Your task to perform on an android device: Open Yahoo.com Image 0: 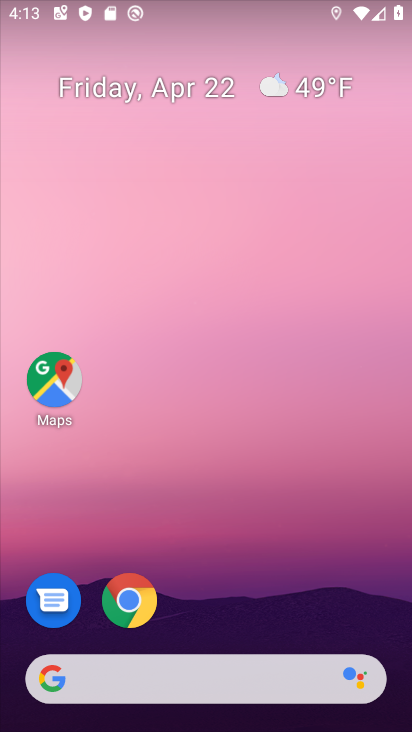
Step 0: click (127, 605)
Your task to perform on an android device: Open Yahoo.com Image 1: 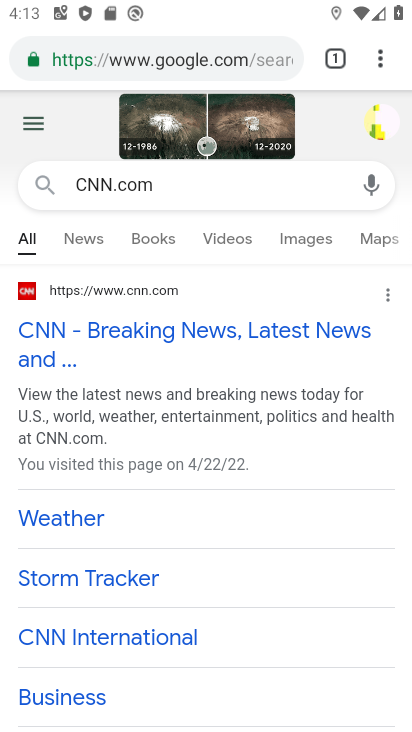
Step 1: click (285, 55)
Your task to perform on an android device: Open Yahoo.com Image 2: 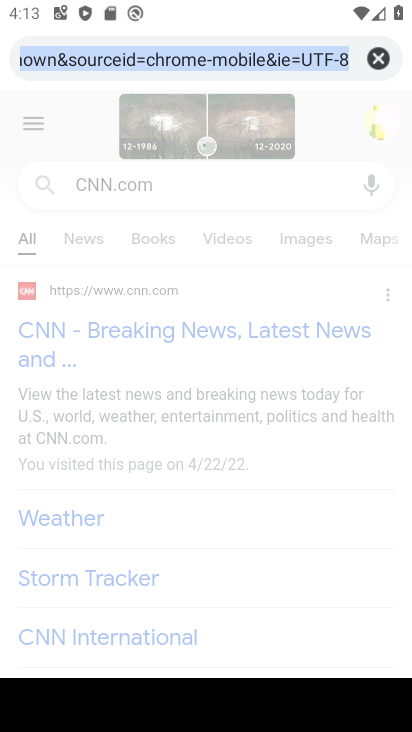
Step 2: click (373, 59)
Your task to perform on an android device: Open Yahoo.com Image 3: 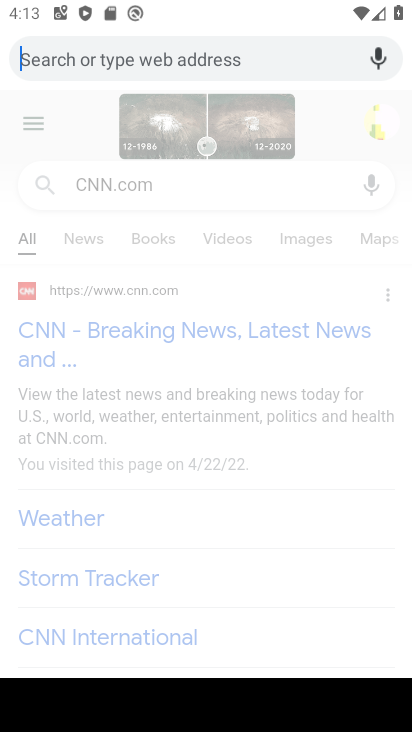
Step 3: type "Yahoo.com"
Your task to perform on an android device: Open Yahoo.com Image 4: 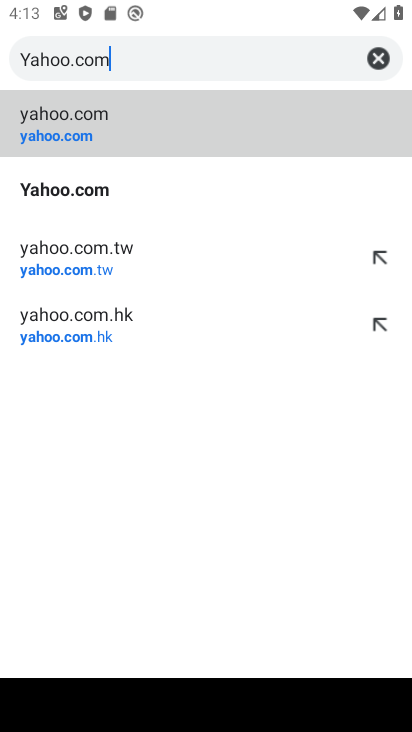
Step 4: click (70, 192)
Your task to perform on an android device: Open Yahoo.com Image 5: 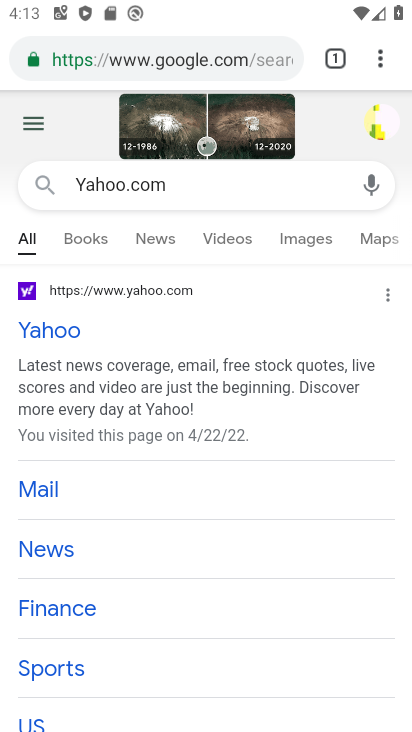
Step 5: task complete